Your task to perform on an android device: What's the weather going to be this weekend? Image 0: 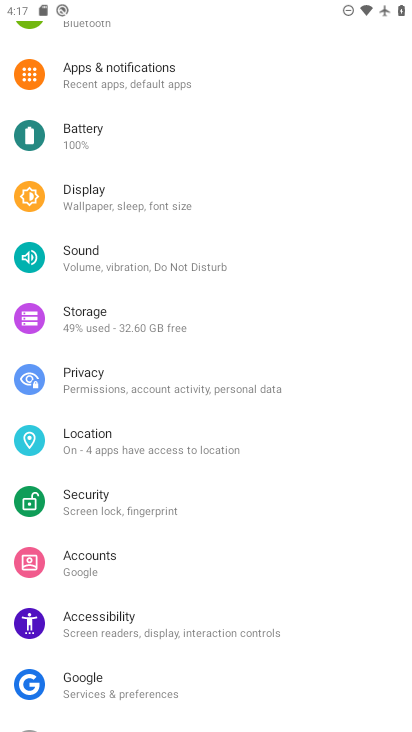
Step 0: press home button
Your task to perform on an android device: What's the weather going to be this weekend? Image 1: 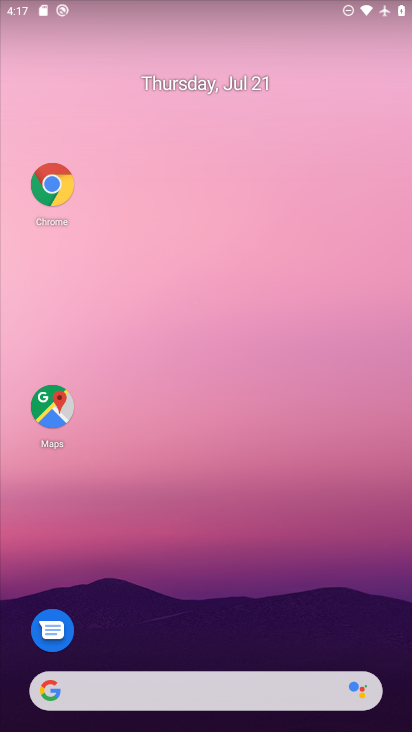
Step 1: drag from (220, 660) to (157, 113)
Your task to perform on an android device: What's the weather going to be this weekend? Image 2: 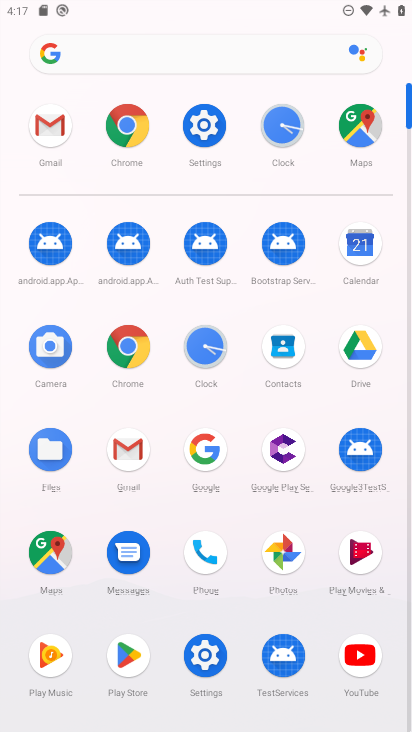
Step 2: click (202, 458)
Your task to perform on an android device: What's the weather going to be this weekend? Image 3: 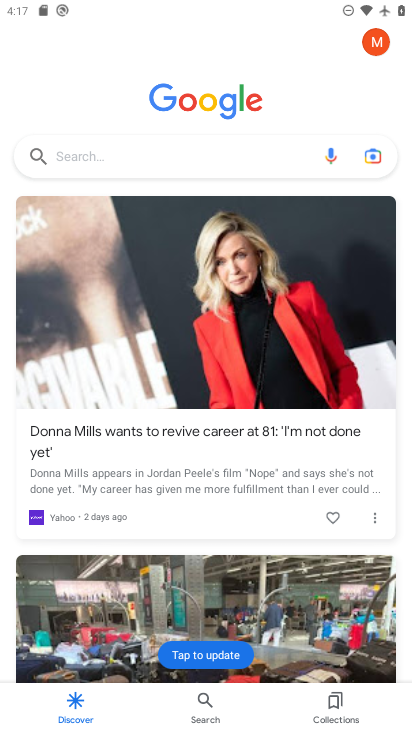
Step 3: click (148, 163)
Your task to perform on an android device: What's the weather going to be this weekend? Image 4: 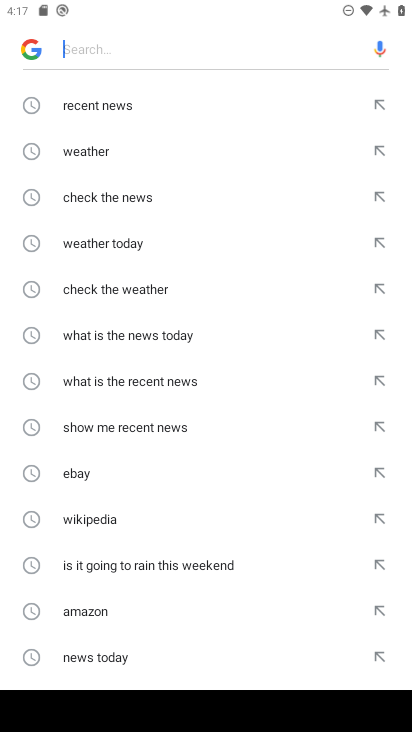
Step 4: click (98, 154)
Your task to perform on an android device: What's the weather going to be this weekend? Image 5: 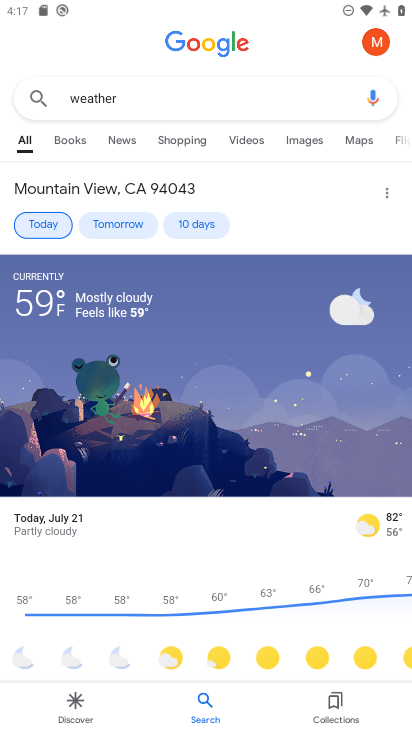
Step 5: click (186, 226)
Your task to perform on an android device: What's the weather going to be this weekend? Image 6: 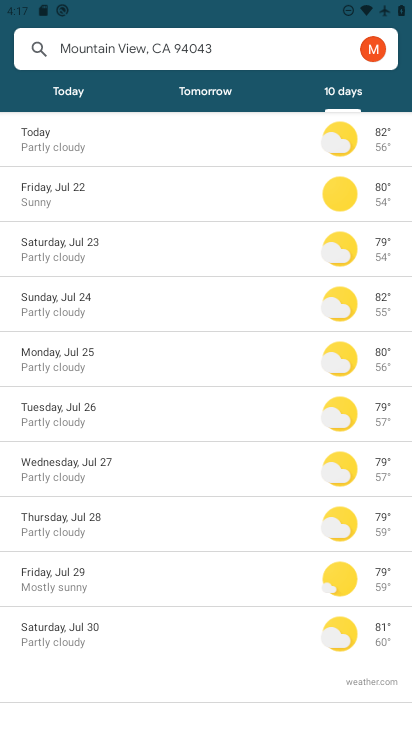
Step 6: task complete